Your task to perform on an android device: Open Google Maps Image 0: 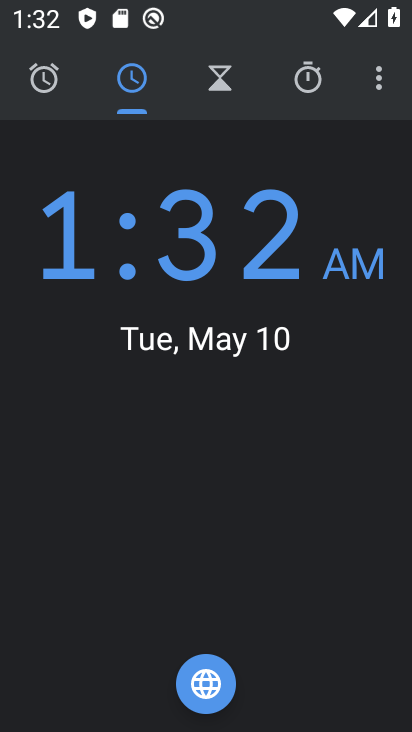
Step 0: press back button
Your task to perform on an android device: Open Google Maps Image 1: 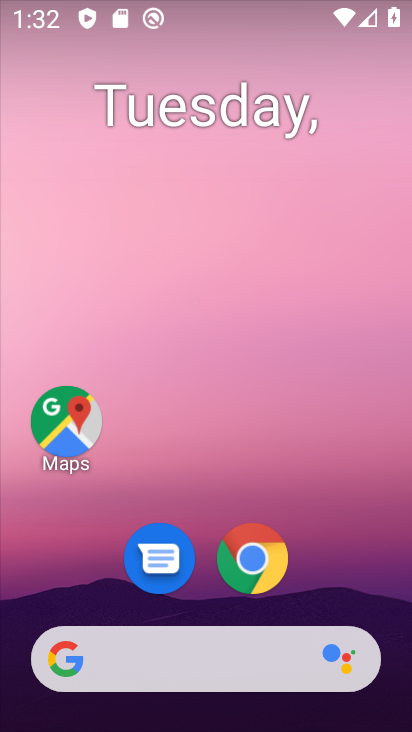
Step 1: click (46, 412)
Your task to perform on an android device: Open Google Maps Image 2: 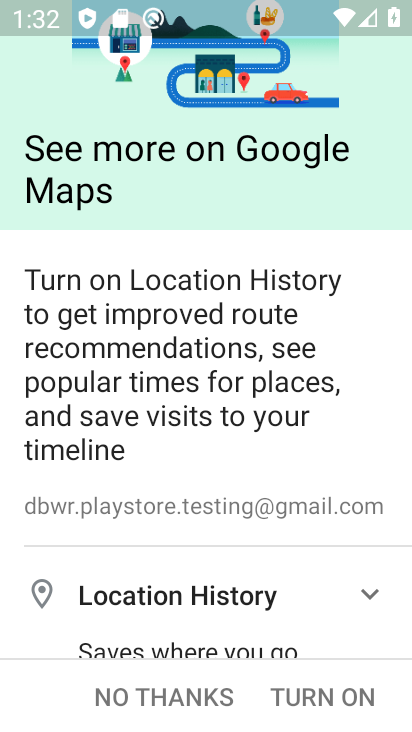
Step 2: press back button
Your task to perform on an android device: Open Google Maps Image 3: 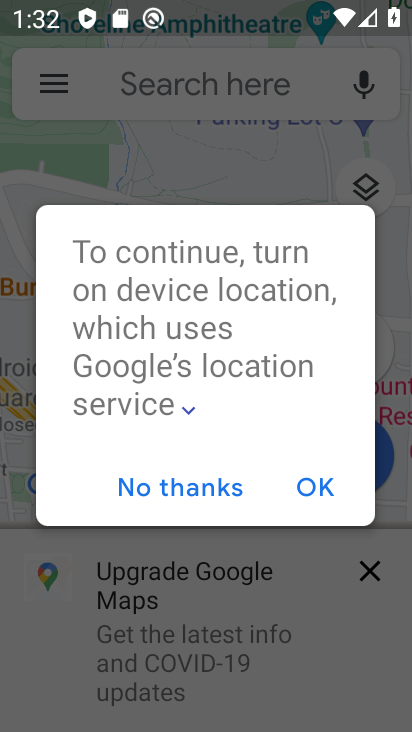
Step 3: click (181, 504)
Your task to perform on an android device: Open Google Maps Image 4: 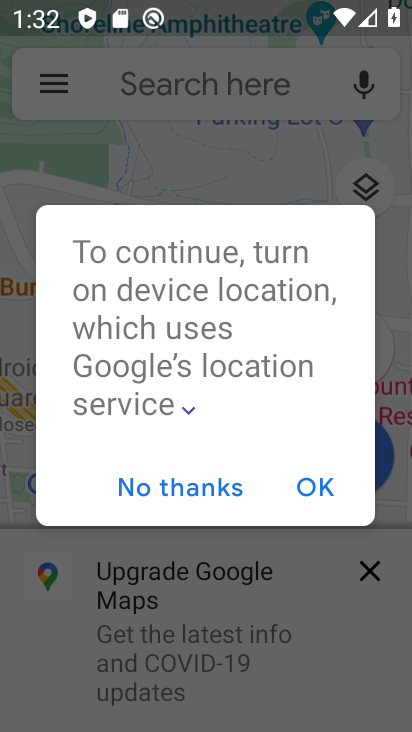
Step 4: click (165, 492)
Your task to perform on an android device: Open Google Maps Image 5: 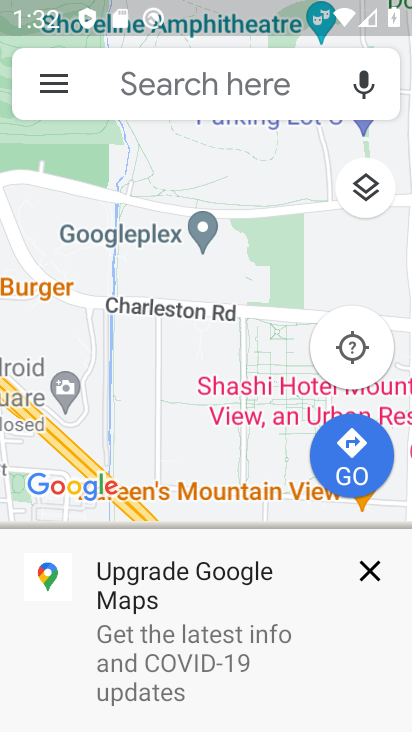
Step 5: task complete